Your task to perform on an android device: Go to internet settings Image 0: 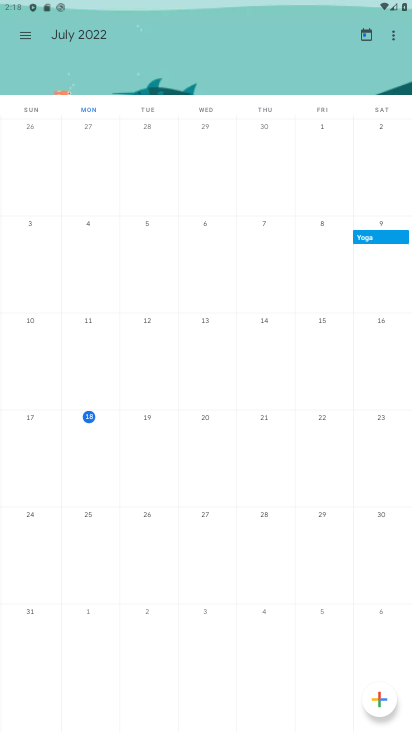
Step 0: press home button
Your task to perform on an android device: Go to internet settings Image 1: 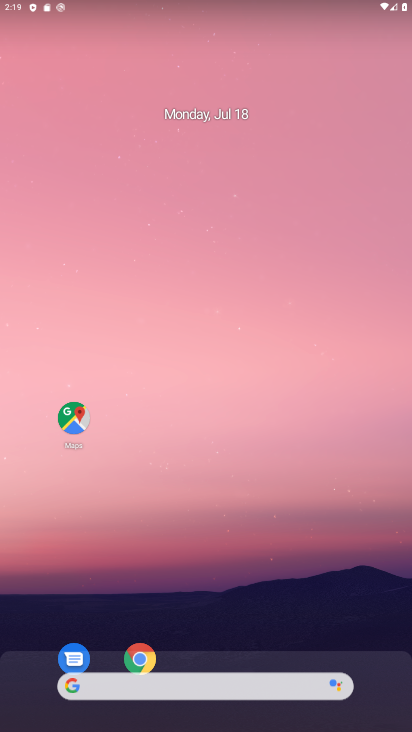
Step 1: drag from (282, 455) to (303, 74)
Your task to perform on an android device: Go to internet settings Image 2: 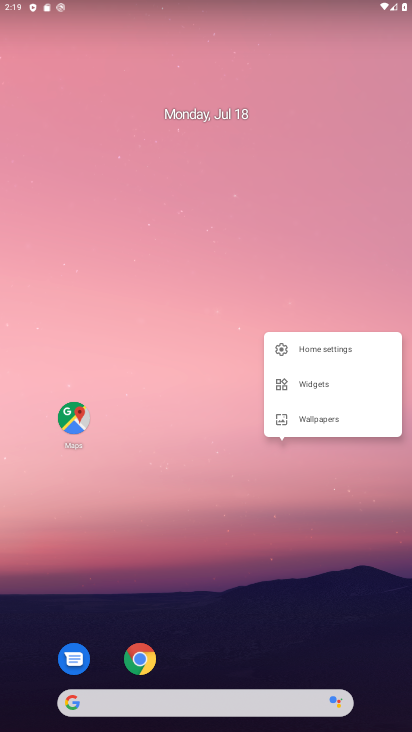
Step 2: drag from (285, 597) to (321, 0)
Your task to perform on an android device: Go to internet settings Image 3: 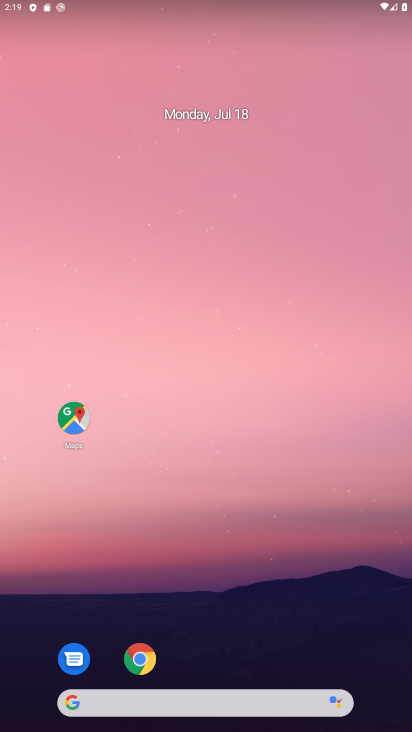
Step 3: click (356, 515)
Your task to perform on an android device: Go to internet settings Image 4: 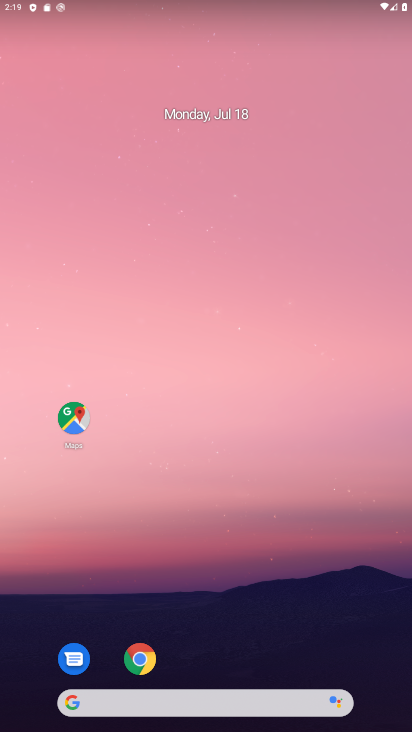
Step 4: drag from (292, 525) to (218, 40)
Your task to perform on an android device: Go to internet settings Image 5: 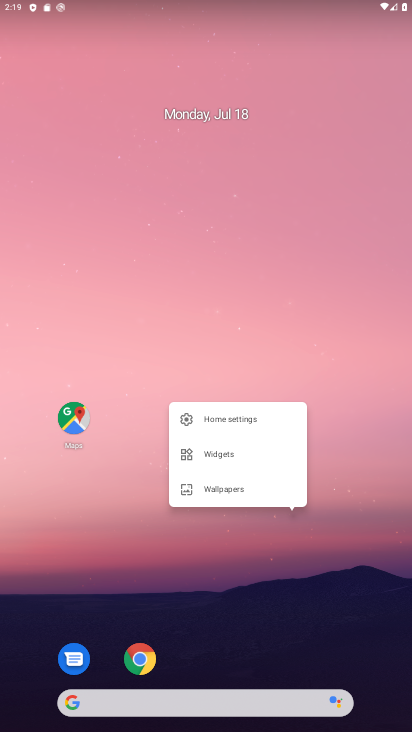
Step 5: click (299, 564)
Your task to perform on an android device: Go to internet settings Image 6: 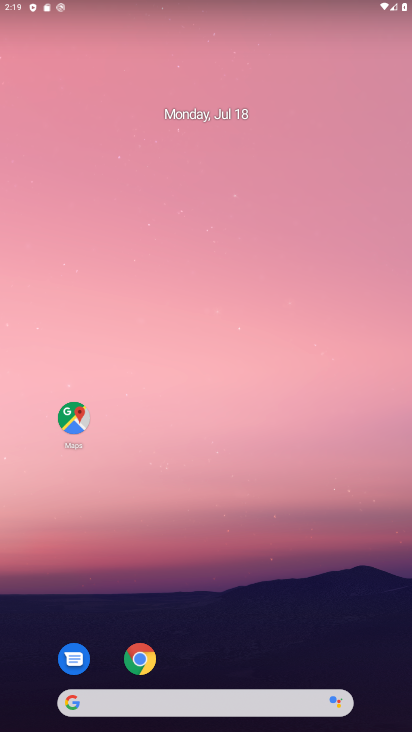
Step 6: drag from (328, 698) to (273, 98)
Your task to perform on an android device: Go to internet settings Image 7: 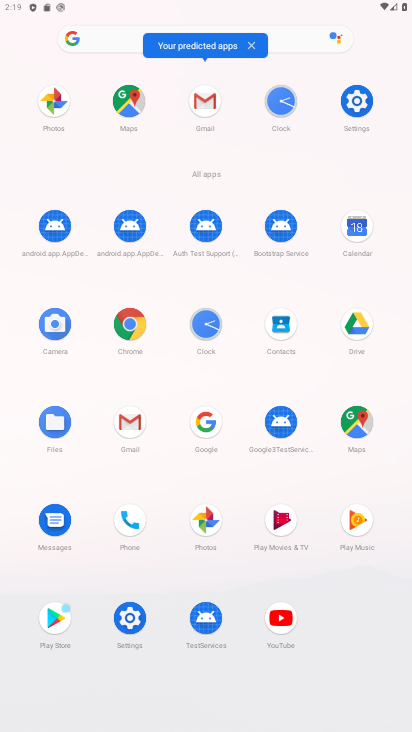
Step 7: click (358, 99)
Your task to perform on an android device: Go to internet settings Image 8: 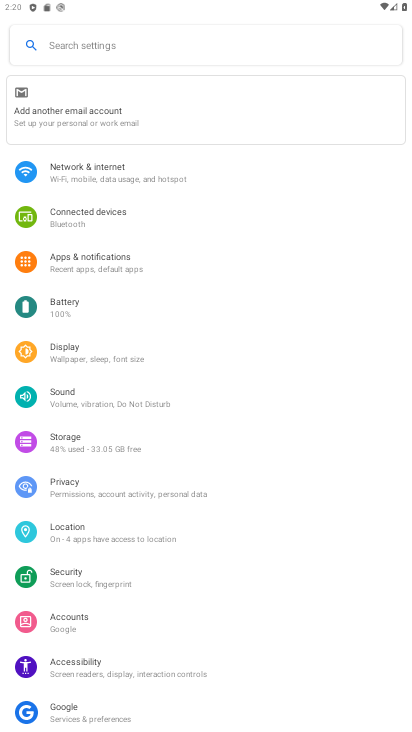
Step 8: click (119, 177)
Your task to perform on an android device: Go to internet settings Image 9: 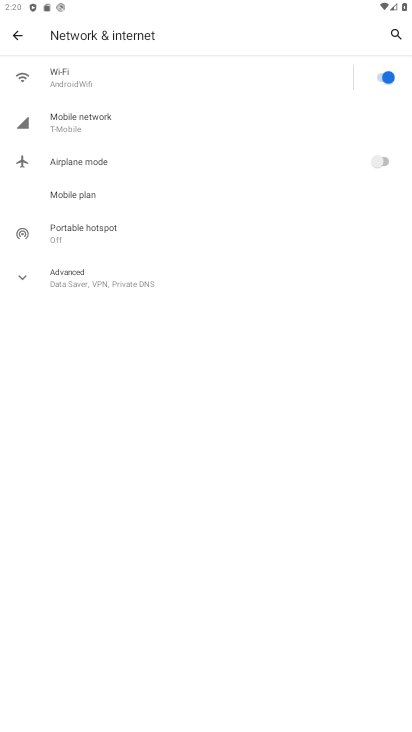
Step 9: click (120, 296)
Your task to perform on an android device: Go to internet settings Image 10: 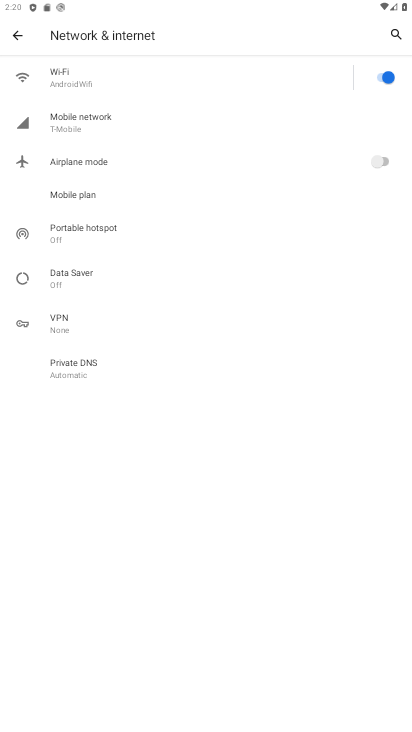
Step 10: click (127, 283)
Your task to perform on an android device: Go to internet settings Image 11: 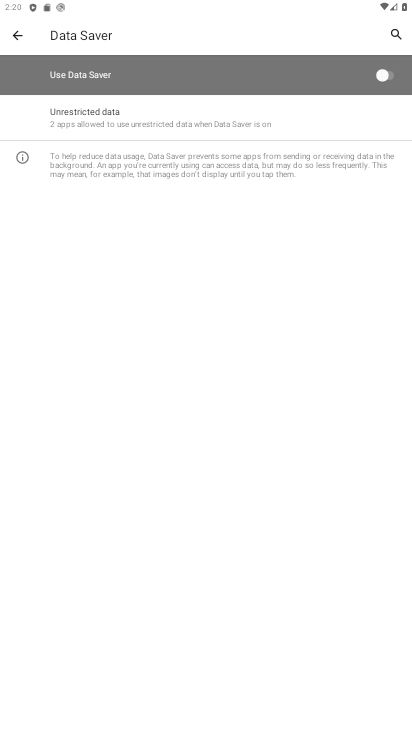
Step 11: task complete